Your task to perform on an android device: Add razer nari to the cart on ebay.com Image 0: 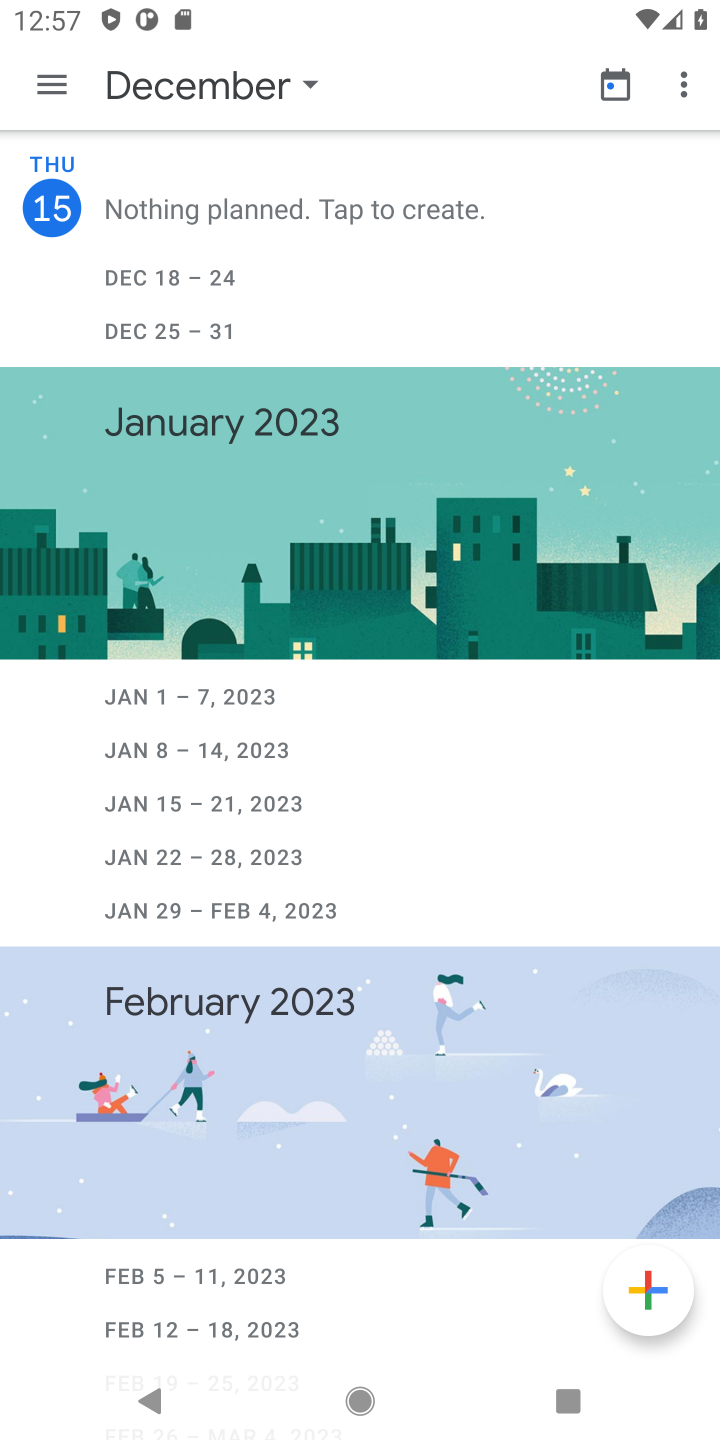
Step 0: press home button
Your task to perform on an android device: Add razer nari to the cart on ebay.com Image 1: 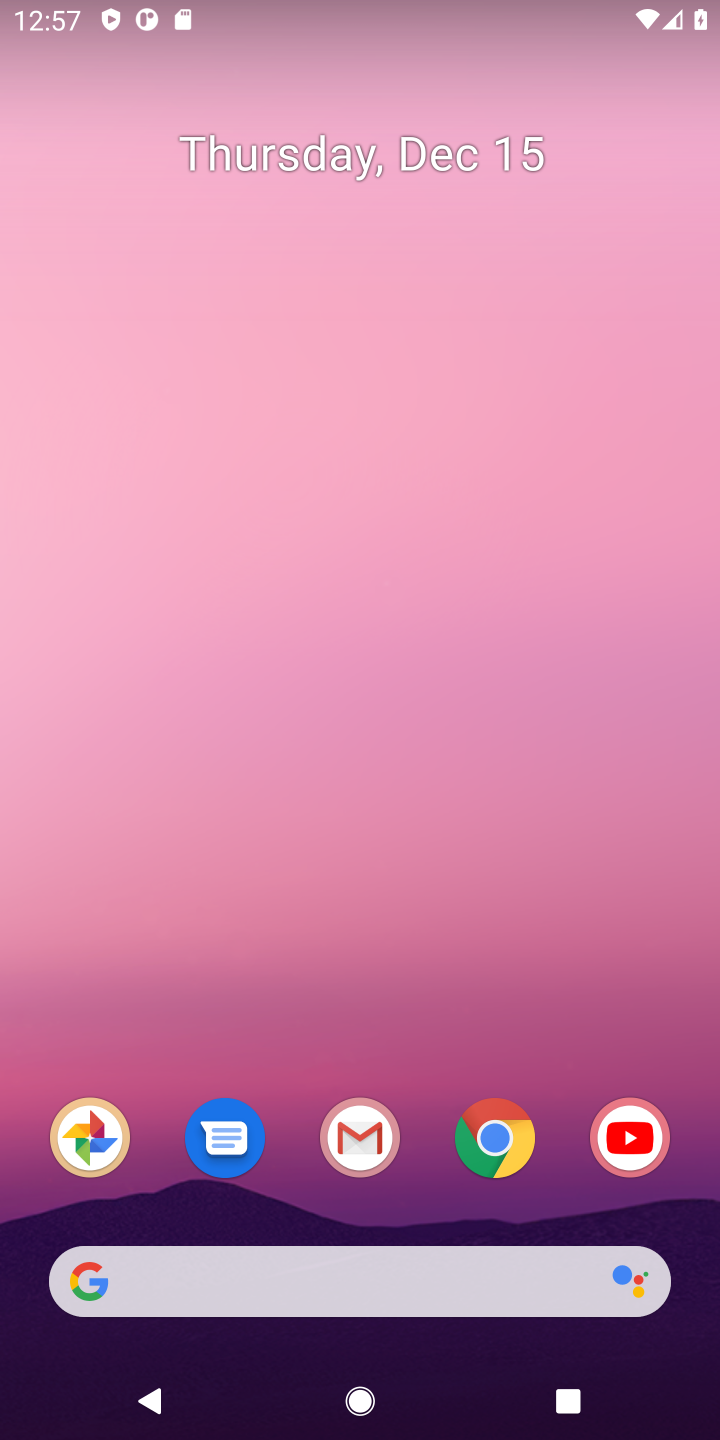
Step 1: click (486, 1128)
Your task to perform on an android device: Add razer nari to the cart on ebay.com Image 2: 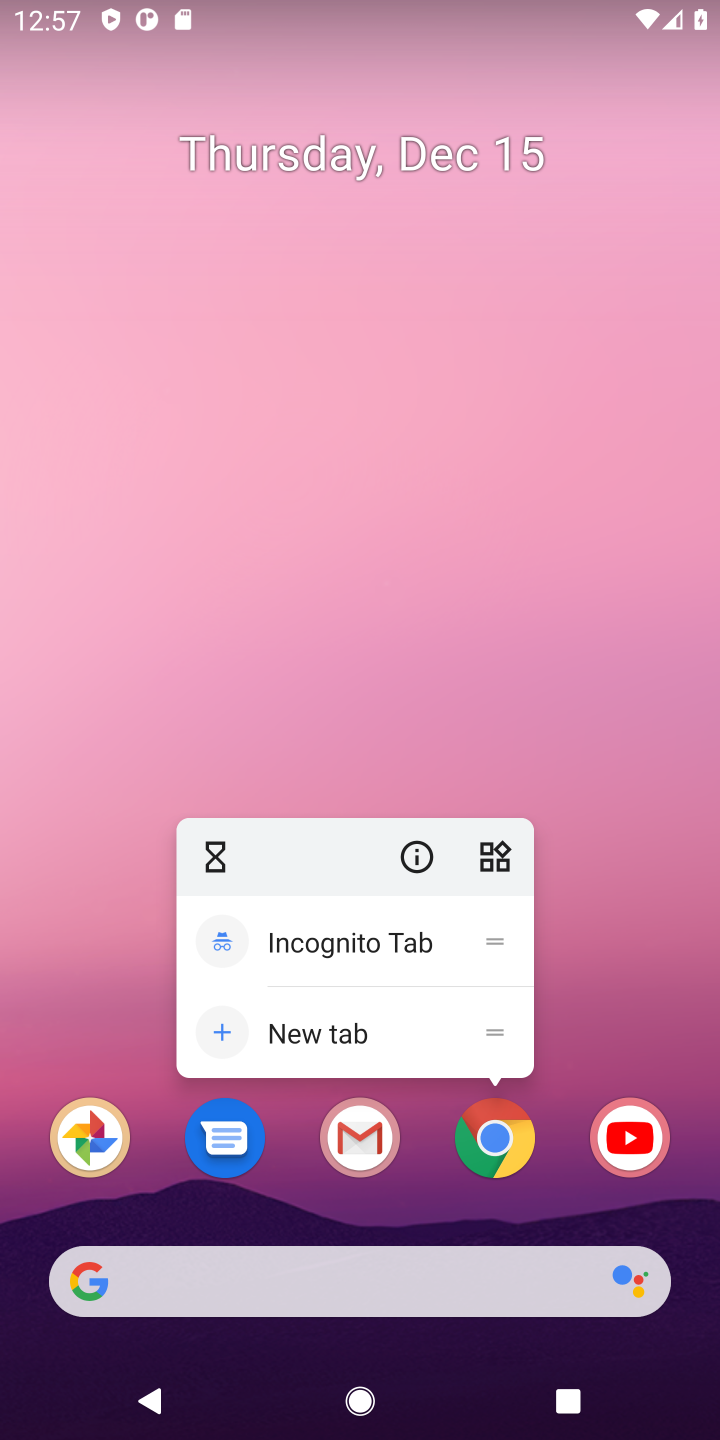
Step 2: click (486, 1128)
Your task to perform on an android device: Add razer nari to the cart on ebay.com Image 3: 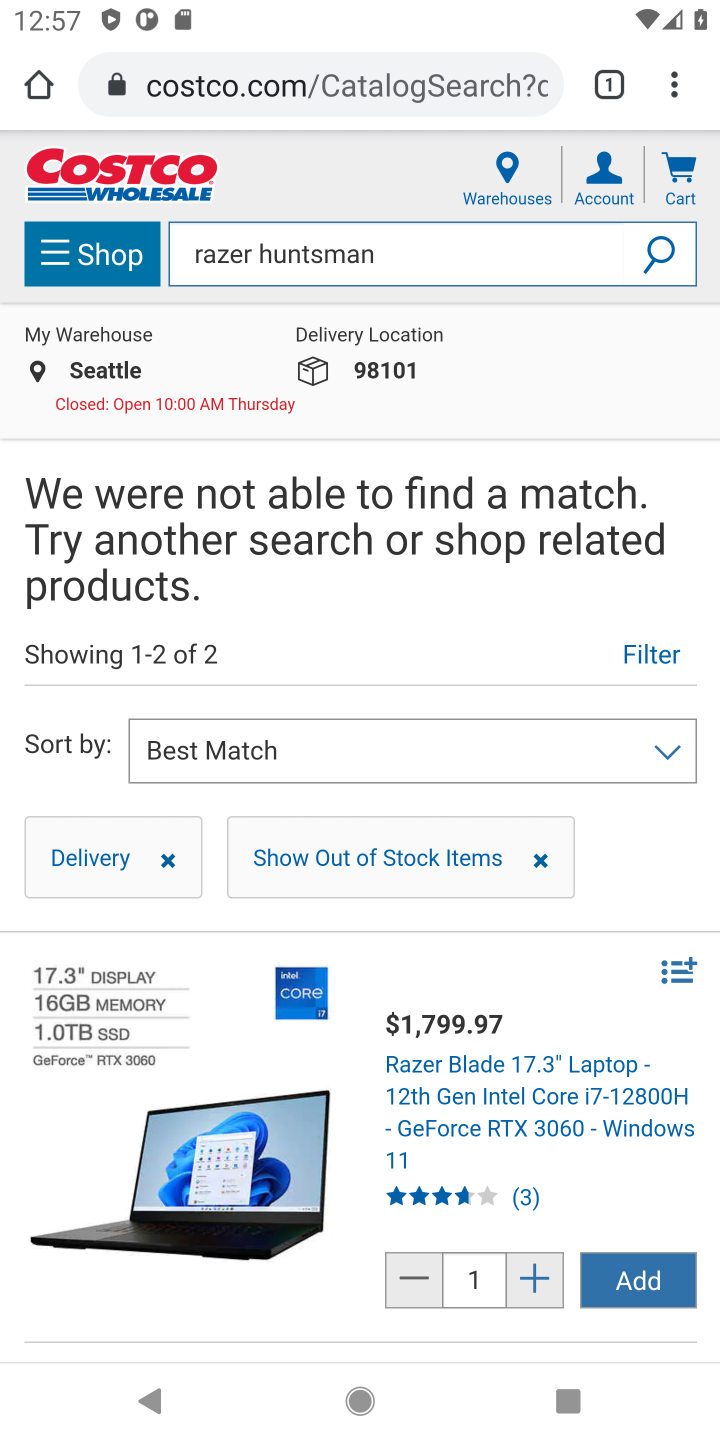
Step 3: click (218, 93)
Your task to perform on an android device: Add razer nari to the cart on ebay.com Image 4: 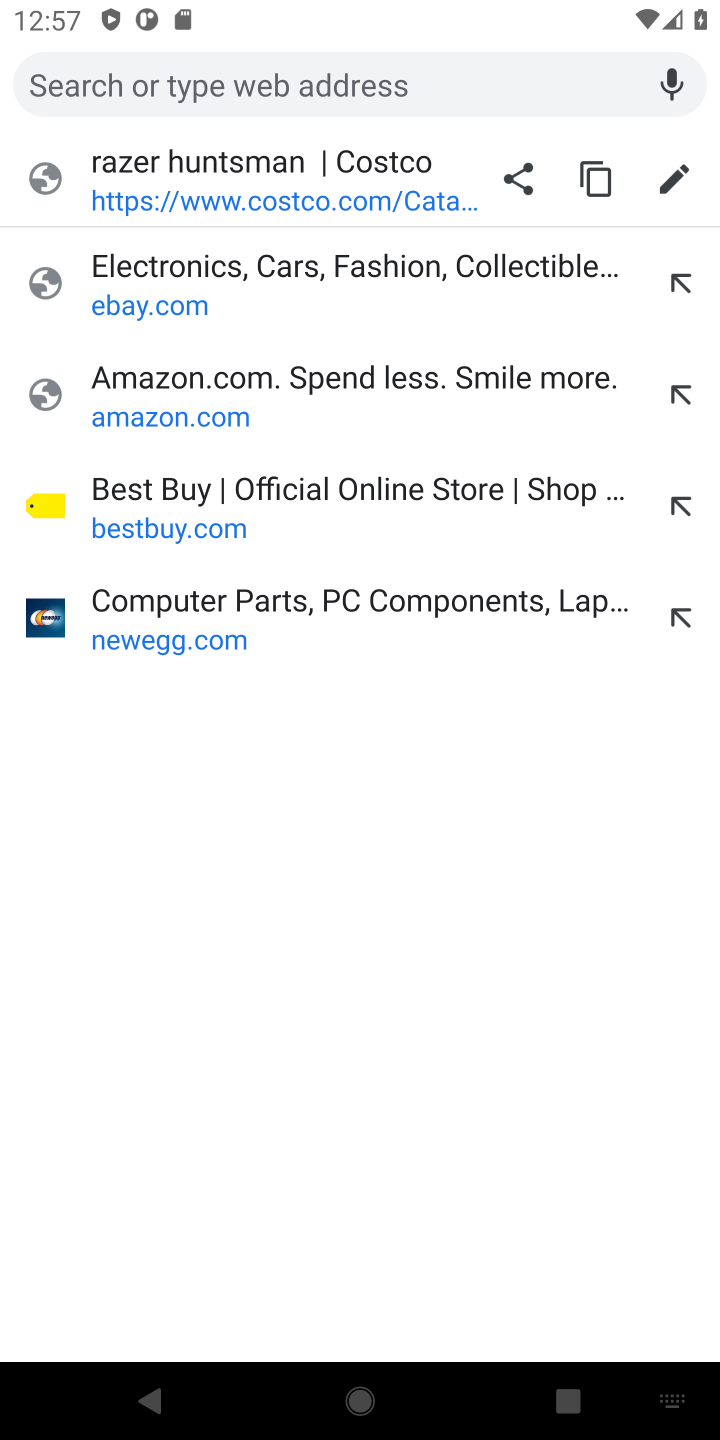
Step 4: type "ebay.com"
Your task to perform on an android device: Add razer nari to the cart on ebay.com Image 5: 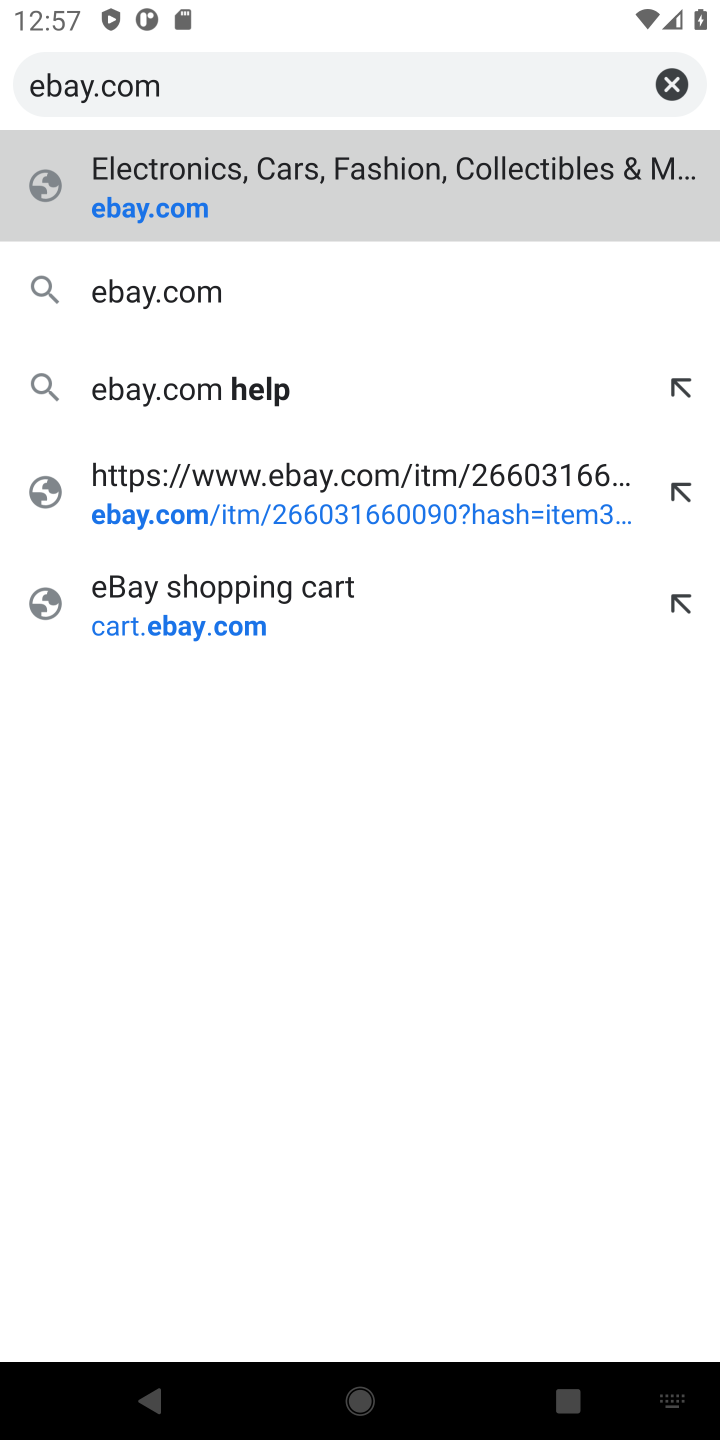
Step 5: press enter
Your task to perform on an android device: Add razer nari to the cart on ebay.com Image 6: 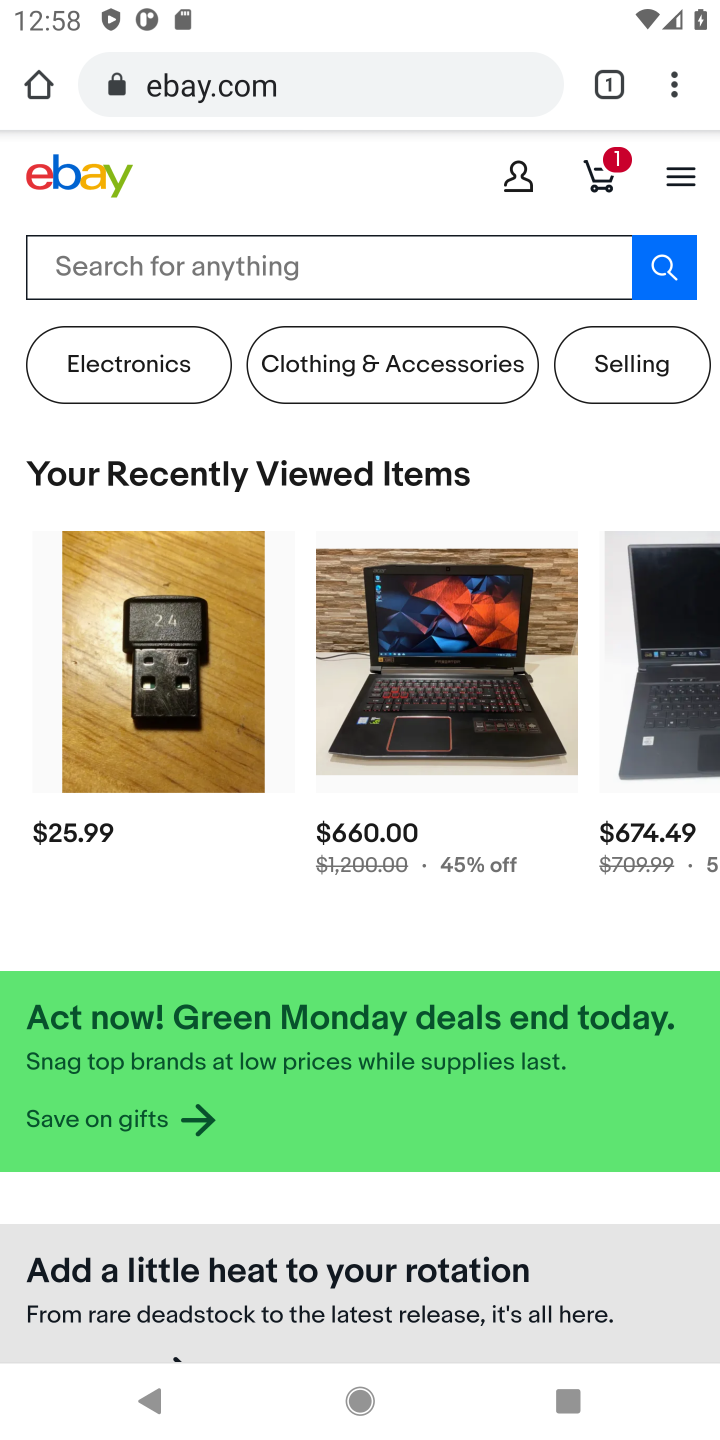
Step 6: click (285, 275)
Your task to perform on an android device: Add razer nari to the cart on ebay.com Image 7: 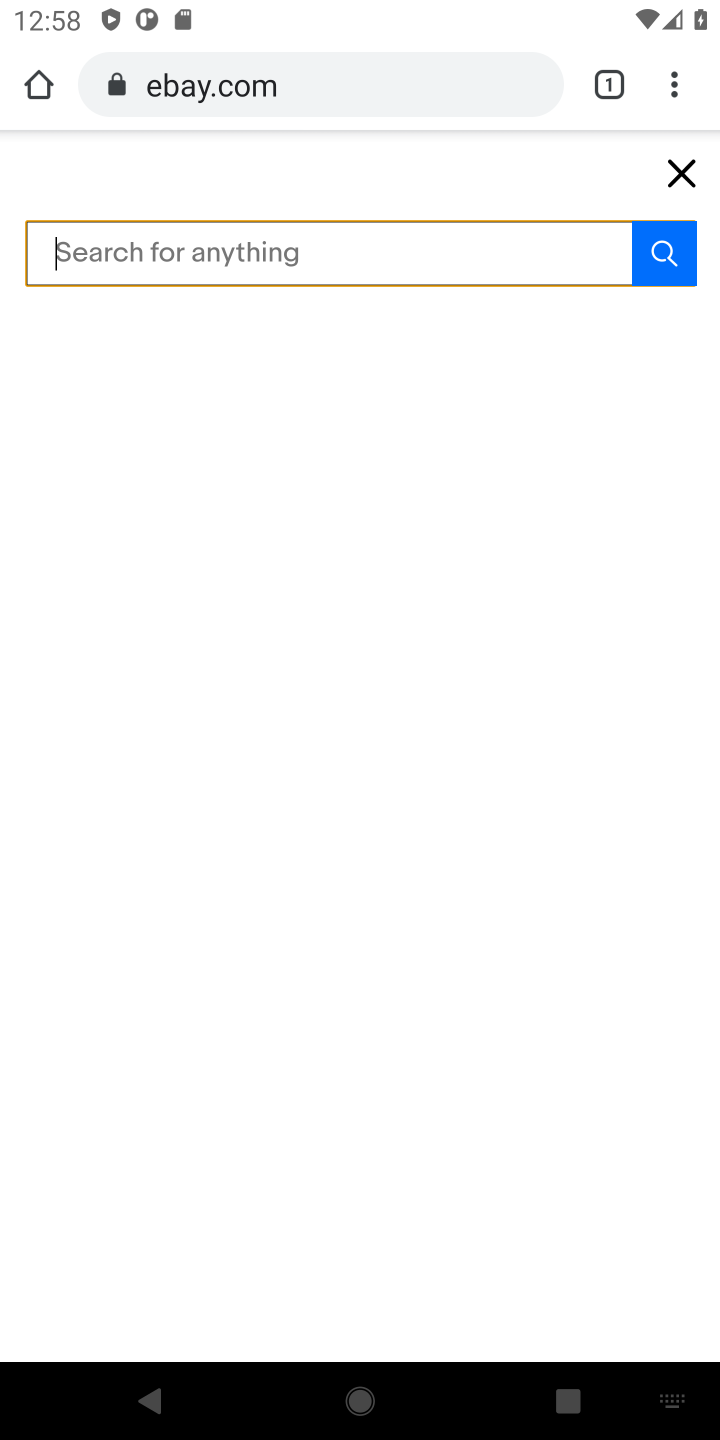
Step 7: type "razer nari"
Your task to perform on an android device: Add razer nari to the cart on ebay.com Image 8: 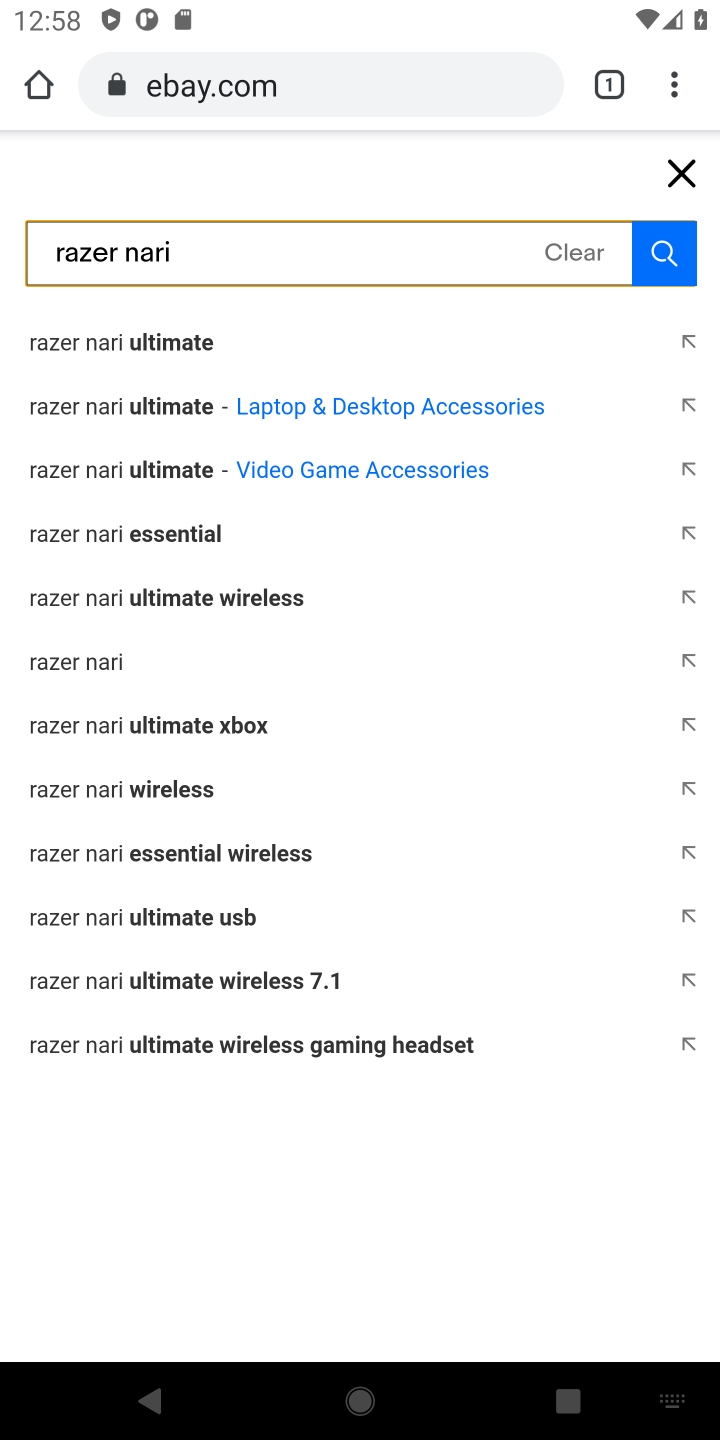
Step 8: press enter
Your task to perform on an android device: Add razer nari to the cart on ebay.com Image 9: 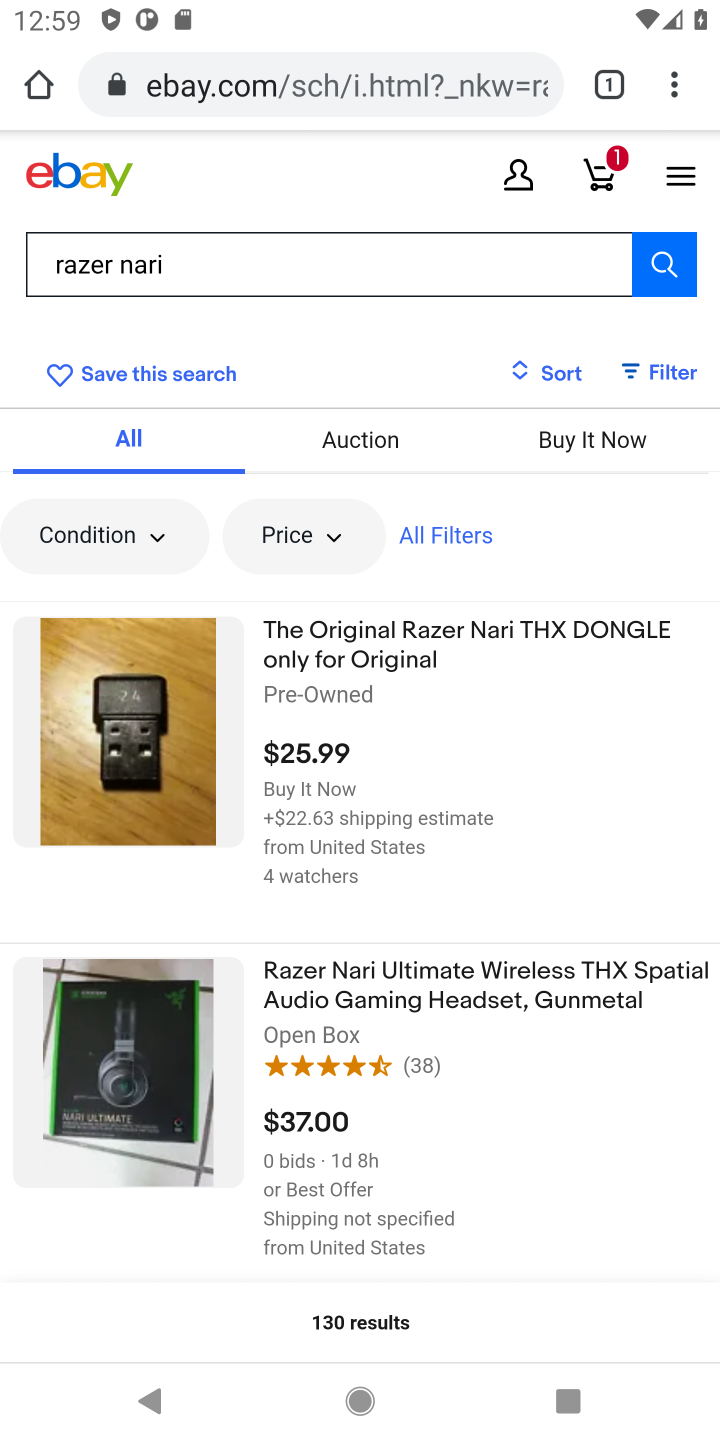
Step 9: click (148, 1076)
Your task to perform on an android device: Add razer nari to the cart on ebay.com Image 10: 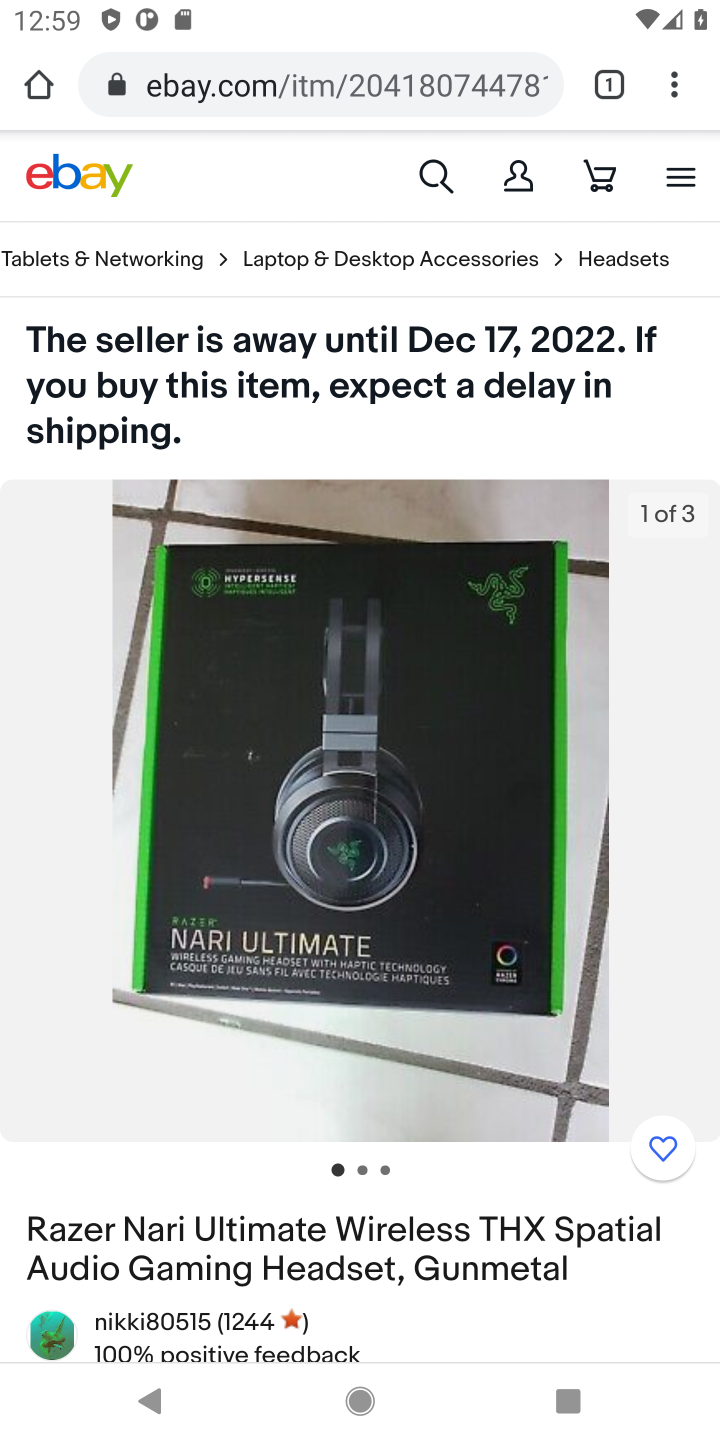
Step 10: drag from (436, 1150) to (340, 388)
Your task to perform on an android device: Add razer nari to the cart on ebay.com Image 11: 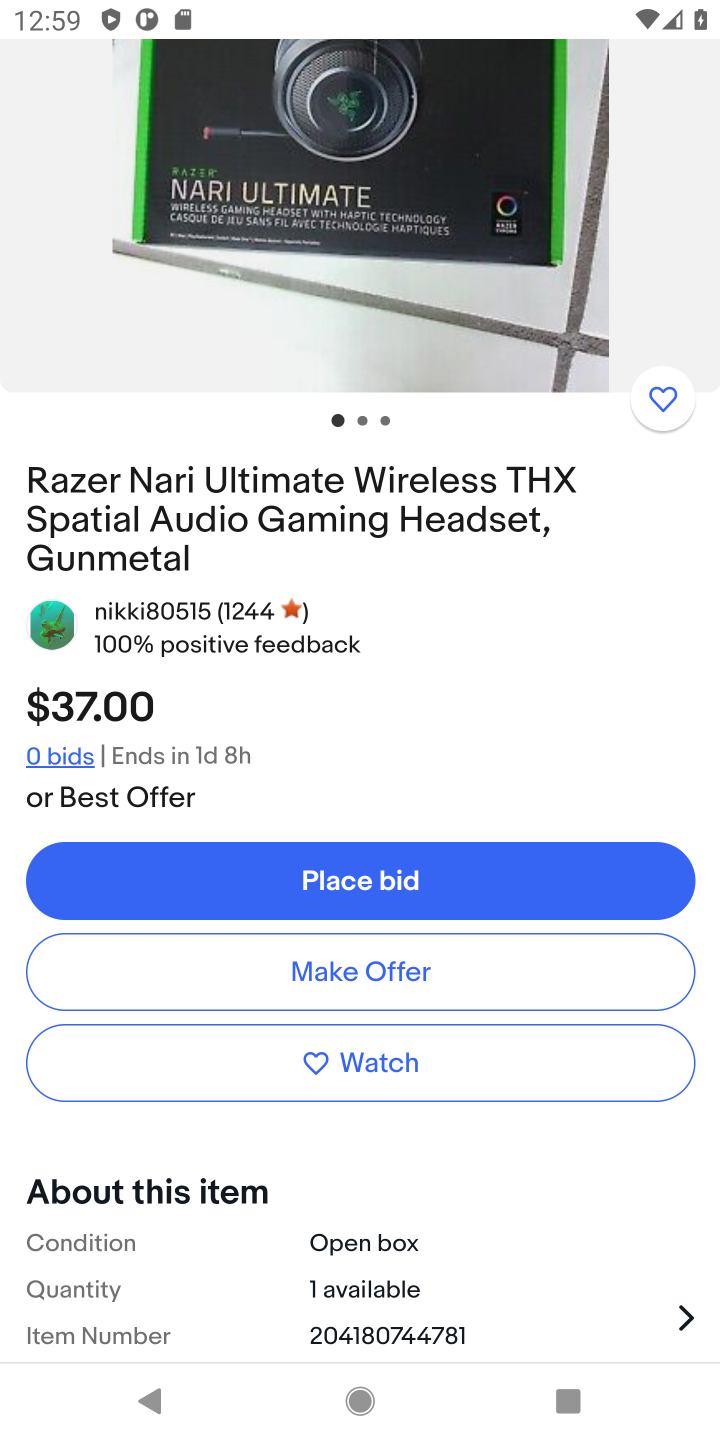
Step 11: press back button
Your task to perform on an android device: Add razer nari to the cart on ebay.com Image 12: 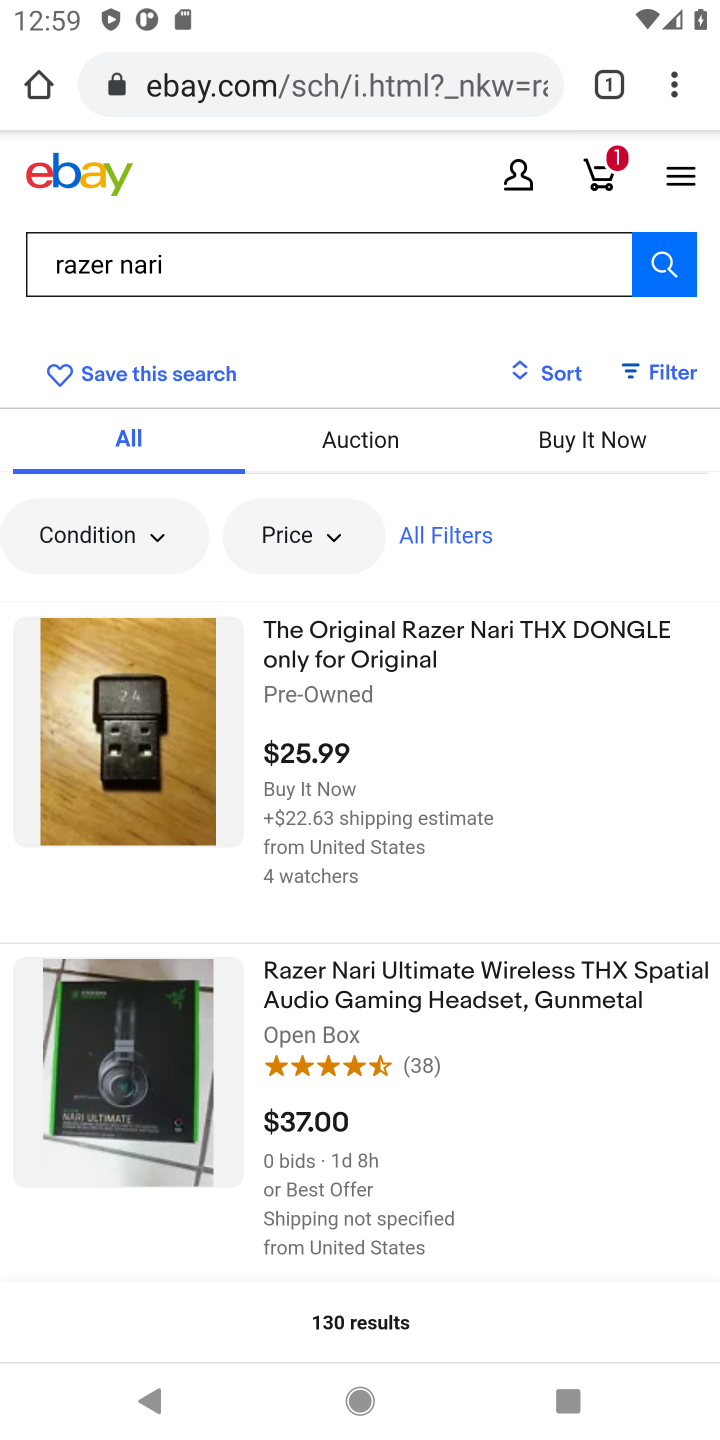
Step 12: drag from (432, 1105) to (395, 578)
Your task to perform on an android device: Add razer nari to the cart on ebay.com Image 13: 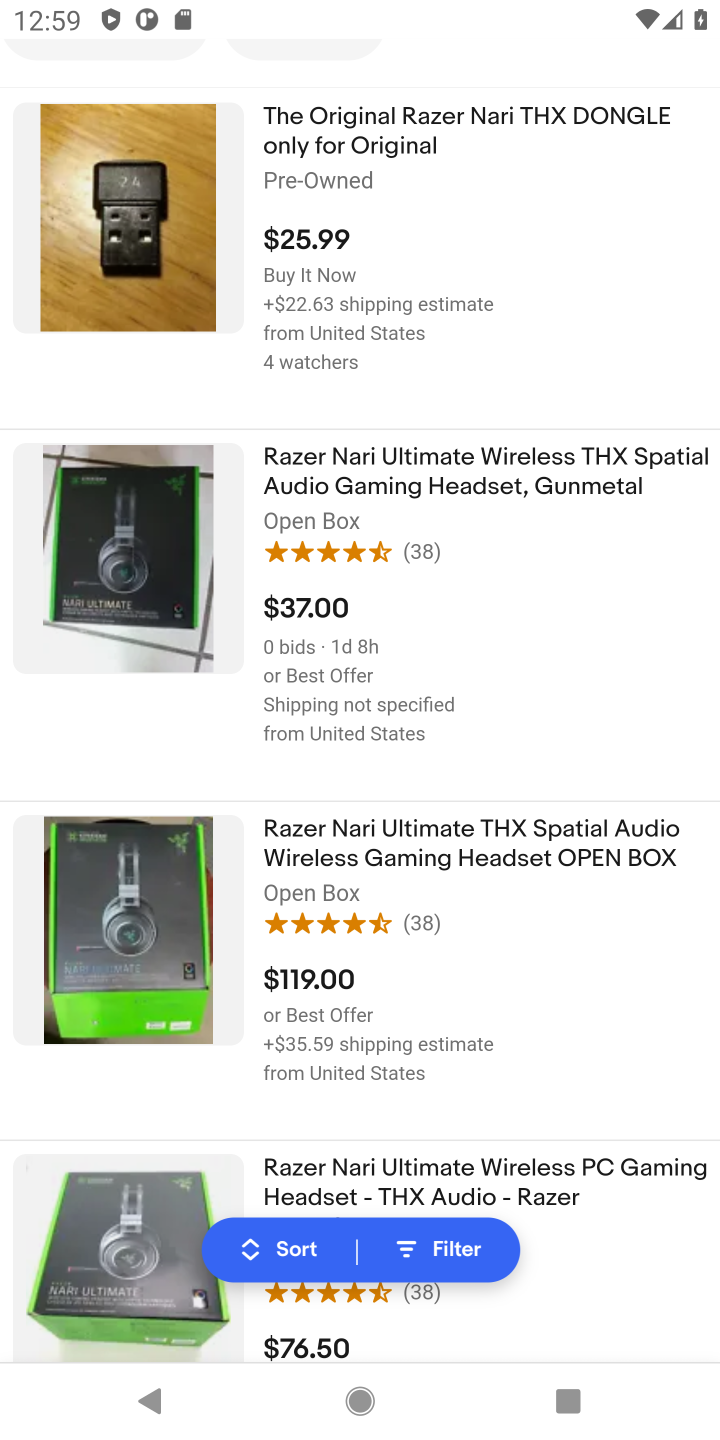
Step 13: click (119, 197)
Your task to perform on an android device: Add razer nari to the cart on ebay.com Image 14: 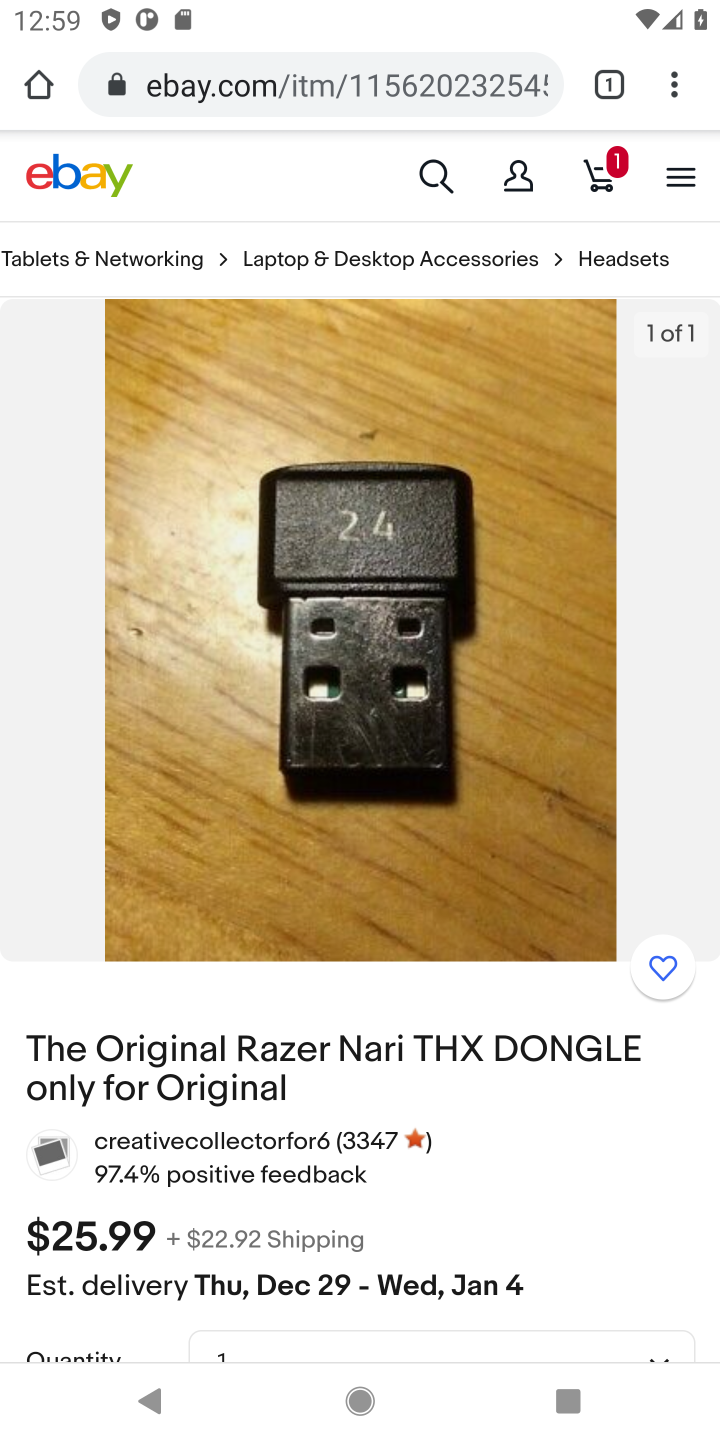
Step 14: drag from (461, 1252) to (239, 401)
Your task to perform on an android device: Add razer nari to the cart on ebay.com Image 15: 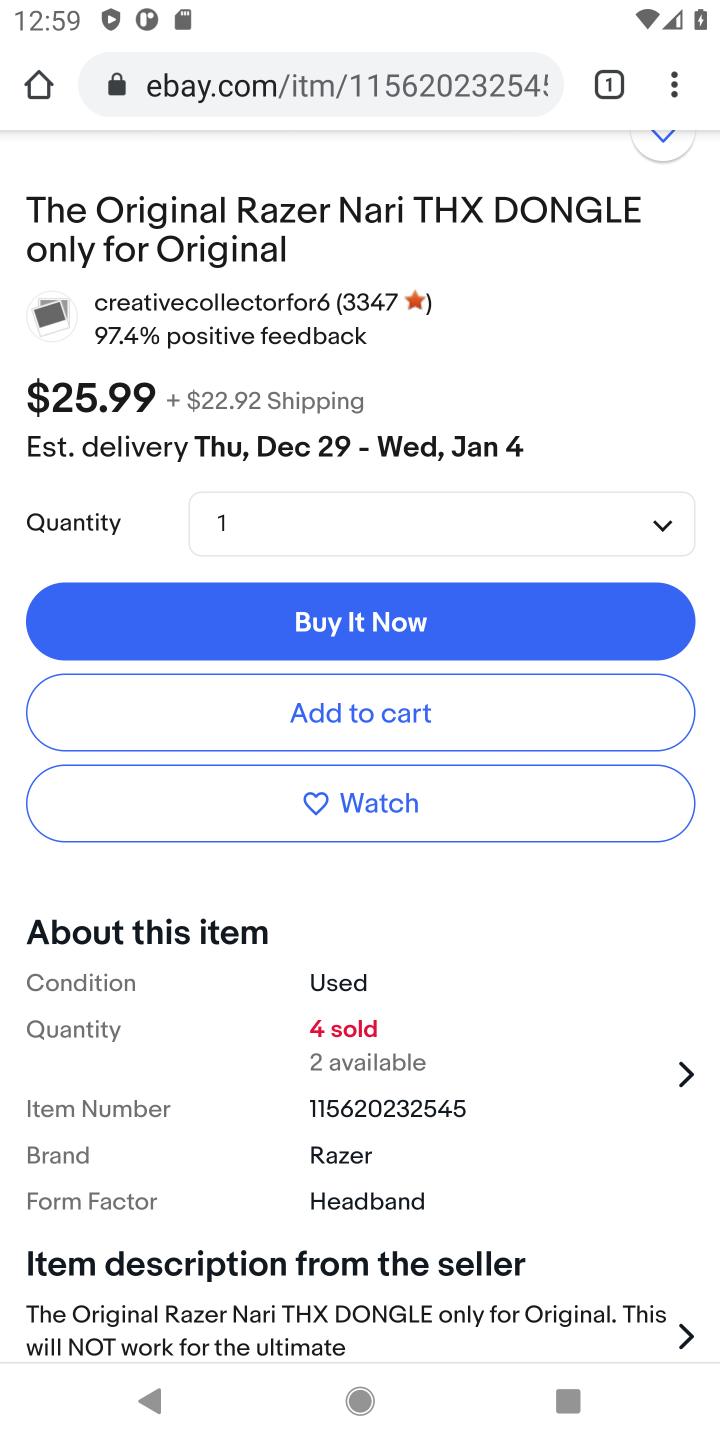
Step 15: click (281, 714)
Your task to perform on an android device: Add razer nari to the cart on ebay.com Image 16: 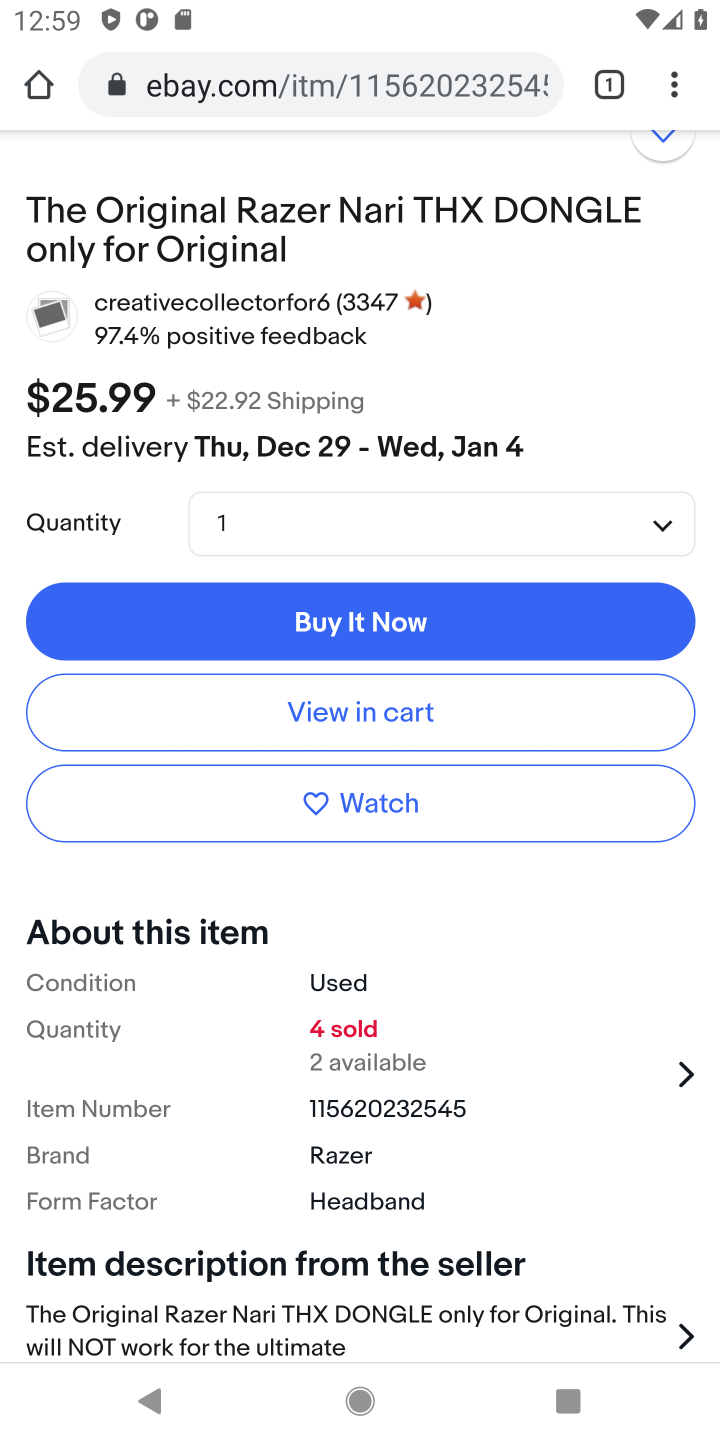
Step 16: click (389, 712)
Your task to perform on an android device: Add razer nari to the cart on ebay.com Image 17: 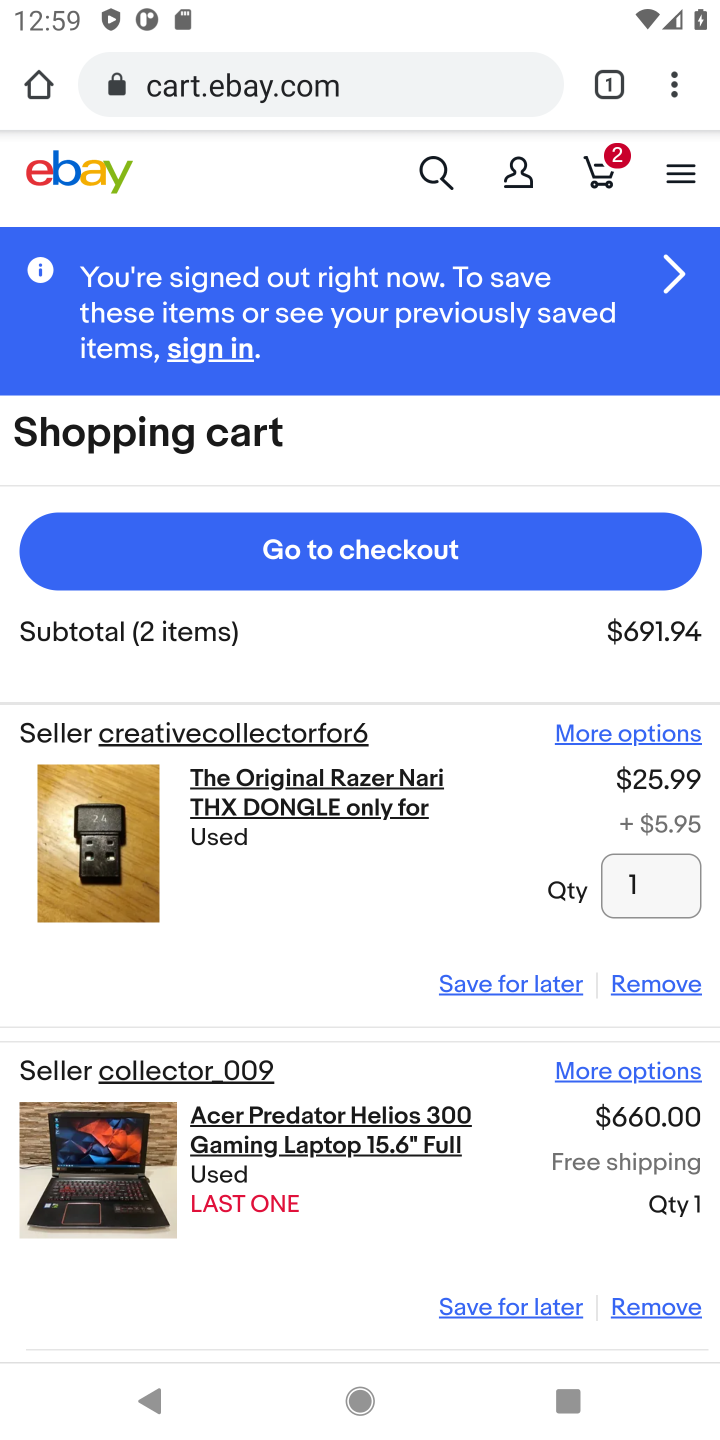
Step 17: task complete